Your task to perform on an android device: open sync settings in chrome Image 0: 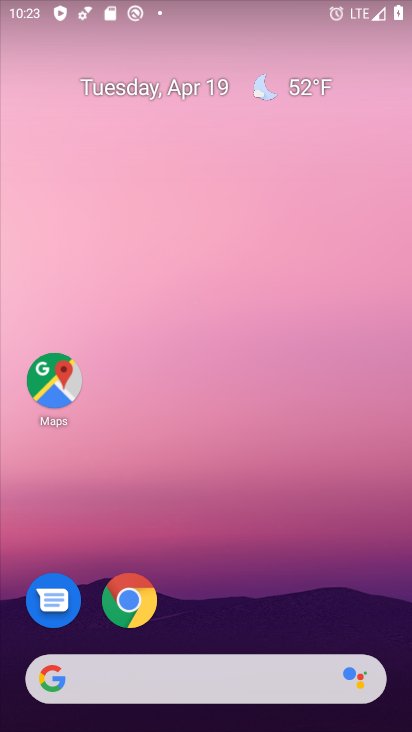
Step 0: drag from (337, 493) to (280, 60)
Your task to perform on an android device: open sync settings in chrome Image 1: 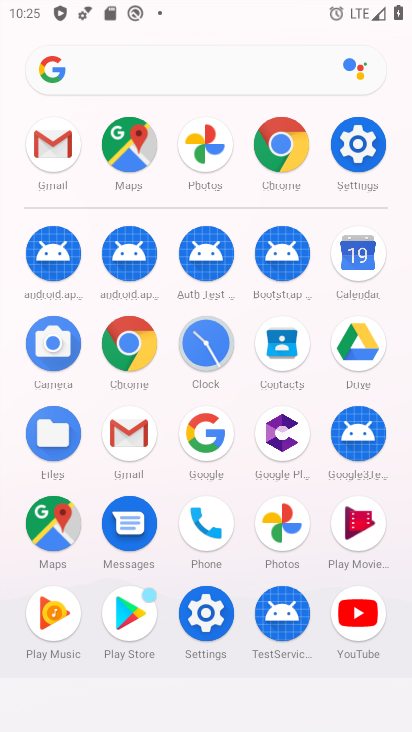
Step 1: click (278, 141)
Your task to perform on an android device: open sync settings in chrome Image 2: 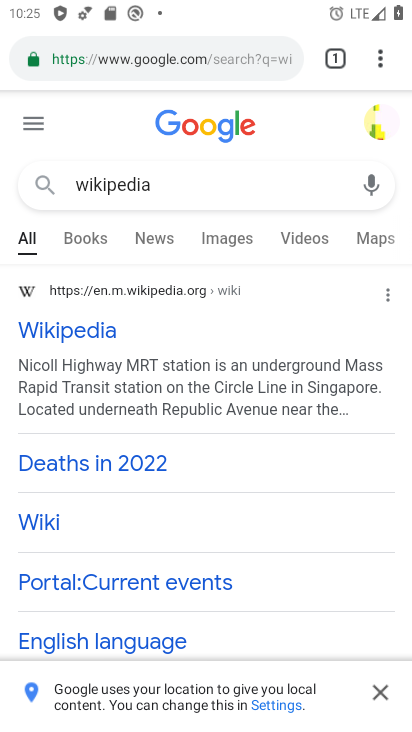
Step 2: press back button
Your task to perform on an android device: open sync settings in chrome Image 3: 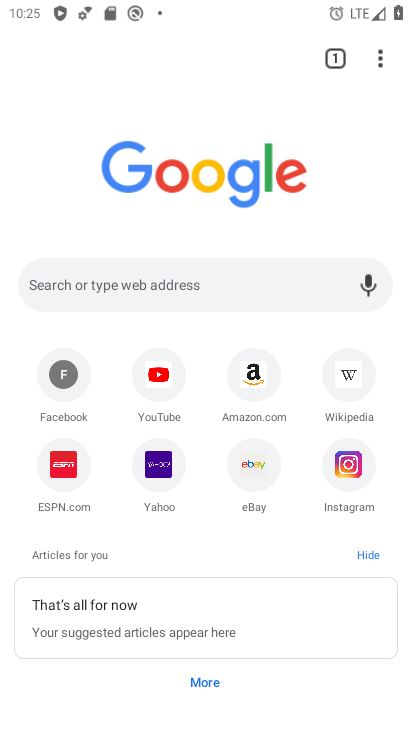
Step 3: click (378, 56)
Your task to perform on an android device: open sync settings in chrome Image 4: 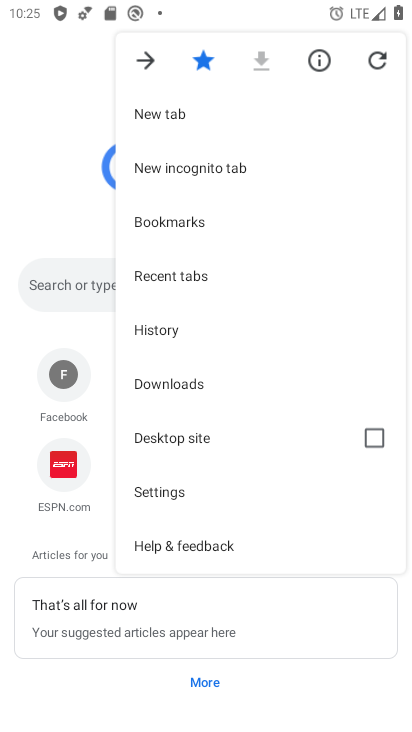
Step 4: click (204, 498)
Your task to perform on an android device: open sync settings in chrome Image 5: 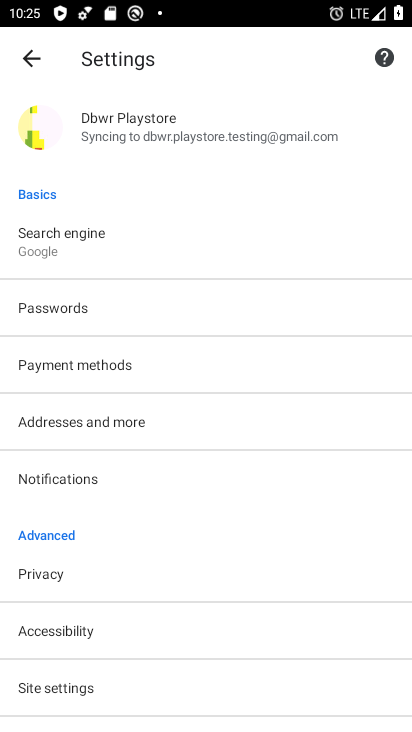
Step 5: drag from (169, 617) to (179, 315)
Your task to perform on an android device: open sync settings in chrome Image 6: 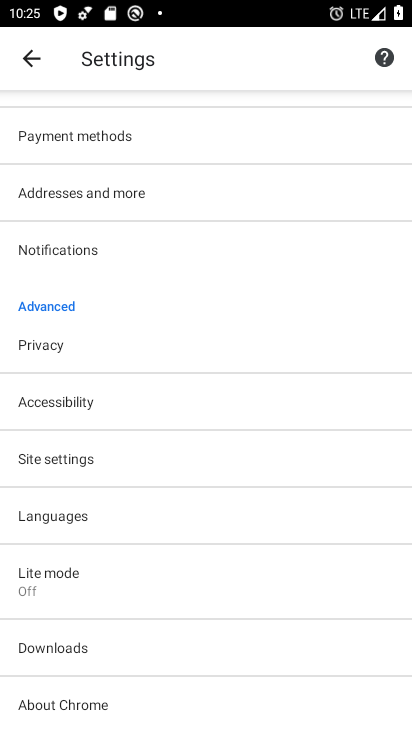
Step 6: click (147, 461)
Your task to perform on an android device: open sync settings in chrome Image 7: 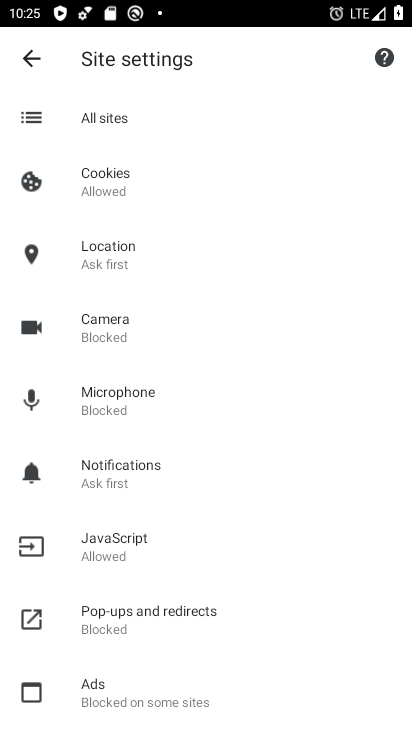
Step 7: drag from (164, 617) to (178, 369)
Your task to perform on an android device: open sync settings in chrome Image 8: 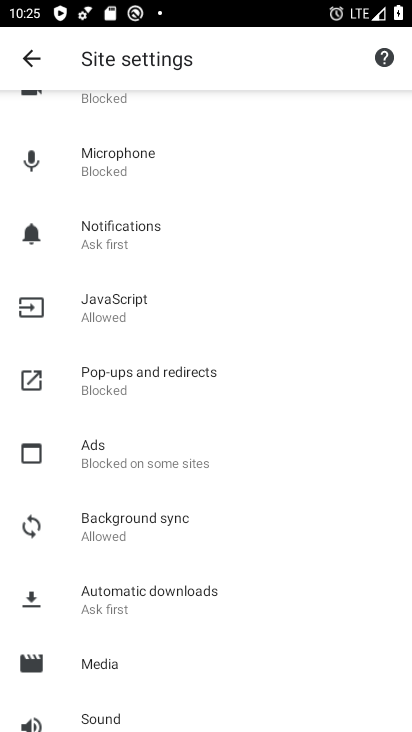
Step 8: click (162, 535)
Your task to perform on an android device: open sync settings in chrome Image 9: 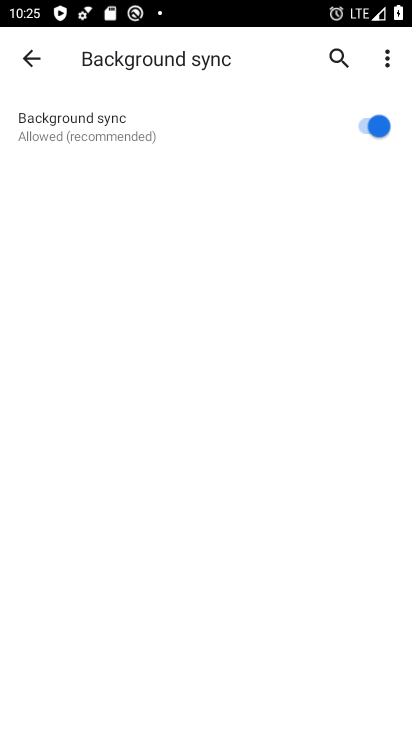
Step 9: task complete